Your task to perform on an android device: turn notification dots on Image 0: 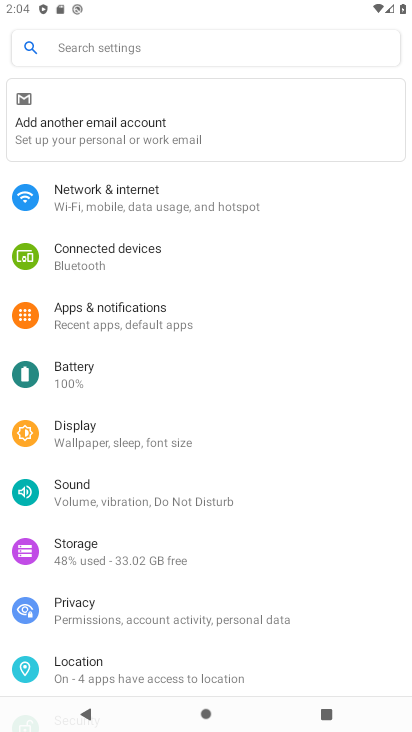
Step 0: click (148, 327)
Your task to perform on an android device: turn notification dots on Image 1: 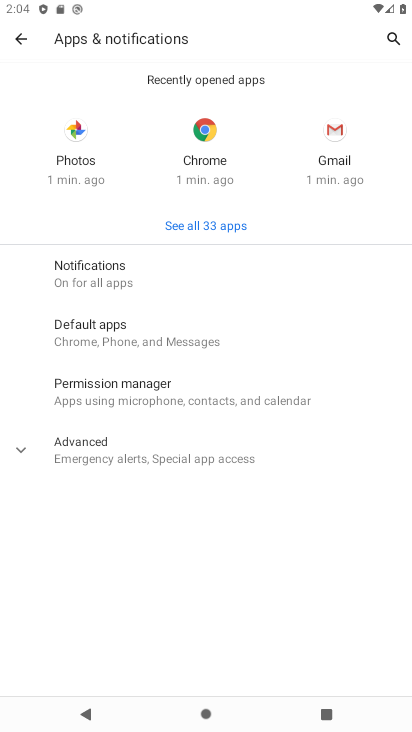
Step 1: click (86, 452)
Your task to perform on an android device: turn notification dots on Image 2: 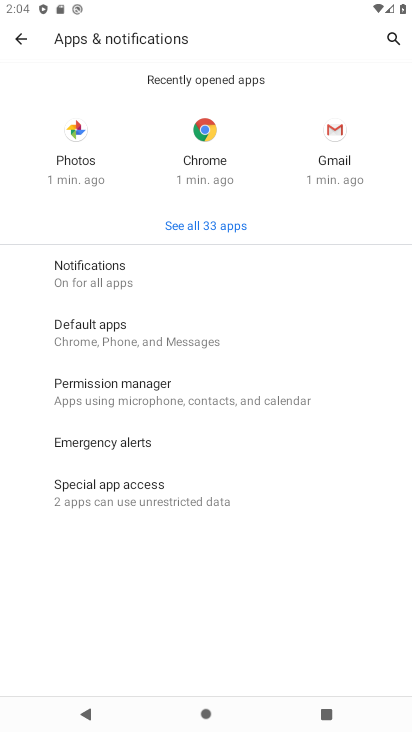
Step 2: click (138, 261)
Your task to perform on an android device: turn notification dots on Image 3: 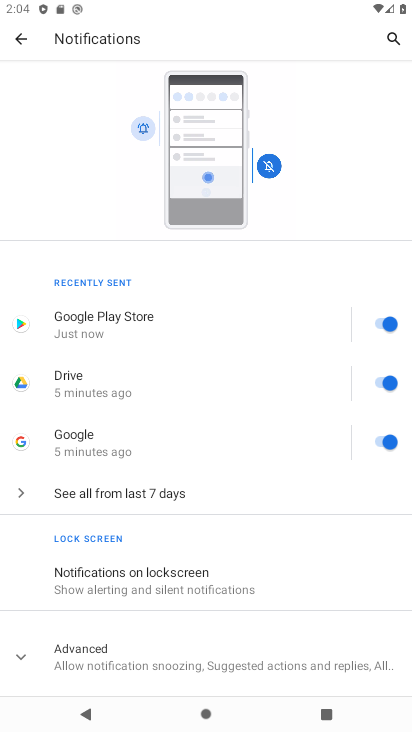
Step 3: drag from (281, 574) to (259, 202)
Your task to perform on an android device: turn notification dots on Image 4: 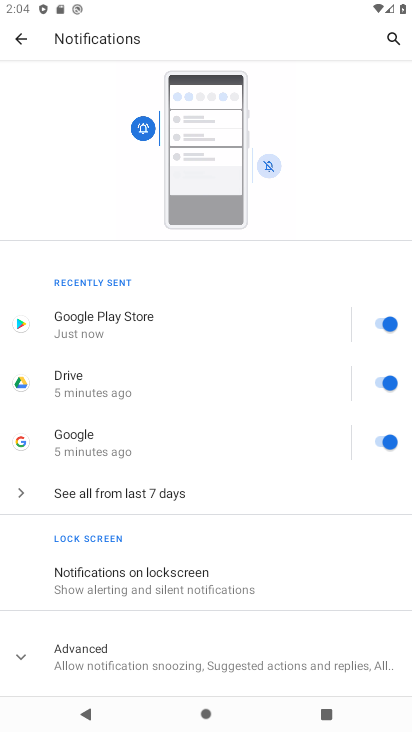
Step 4: click (198, 648)
Your task to perform on an android device: turn notification dots on Image 5: 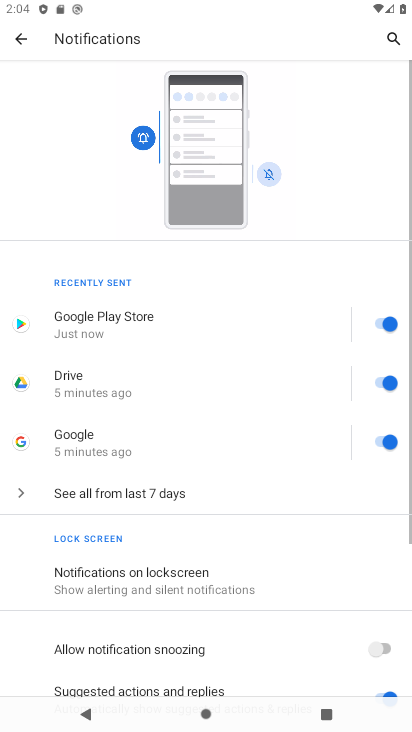
Step 5: task complete